Your task to perform on an android device: toggle translation in the chrome app Image 0: 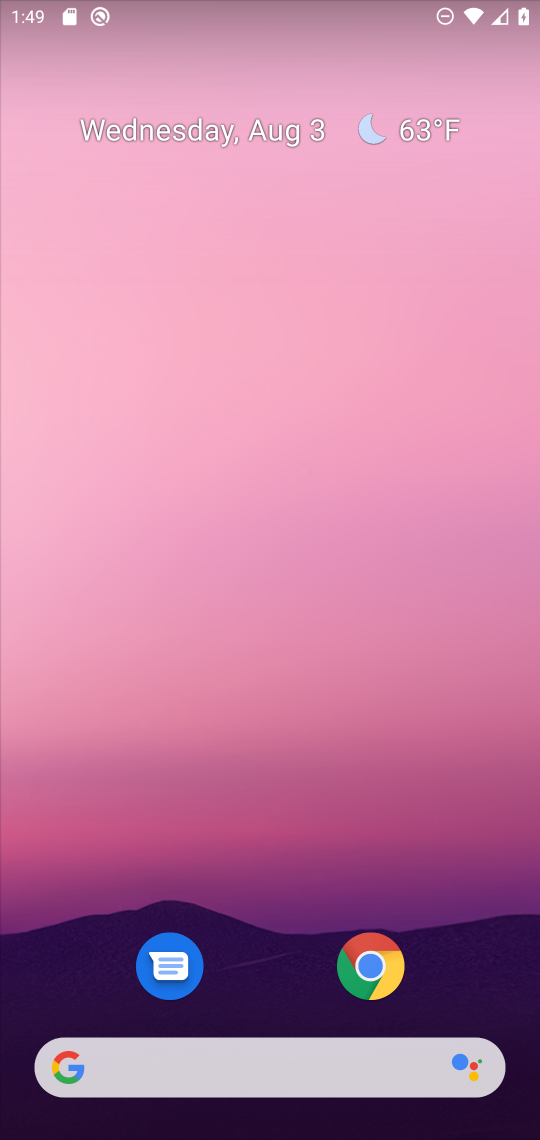
Step 0: click (343, 980)
Your task to perform on an android device: toggle translation in the chrome app Image 1: 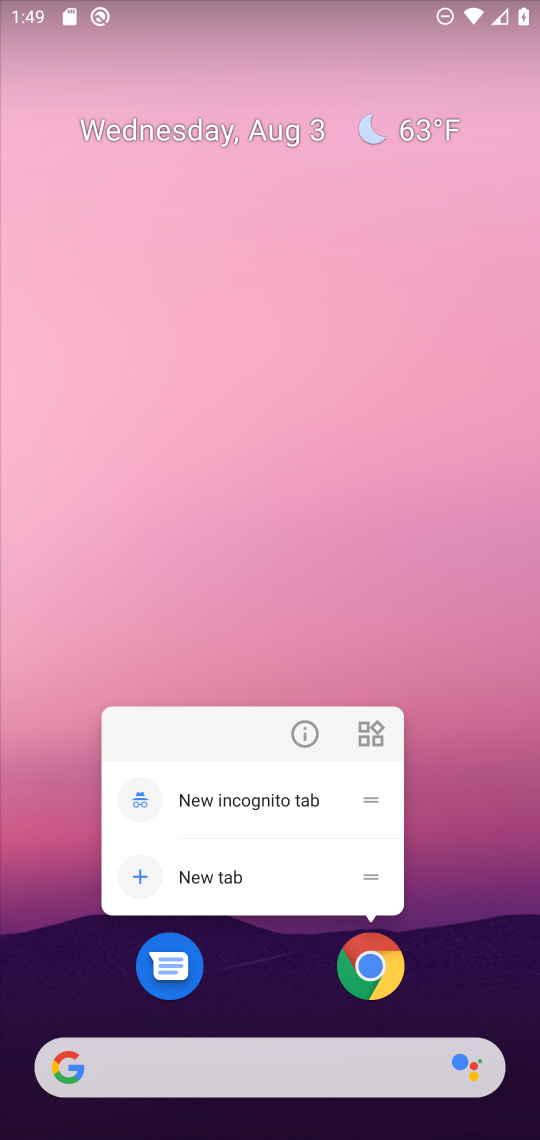
Step 1: click (381, 983)
Your task to perform on an android device: toggle translation in the chrome app Image 2: 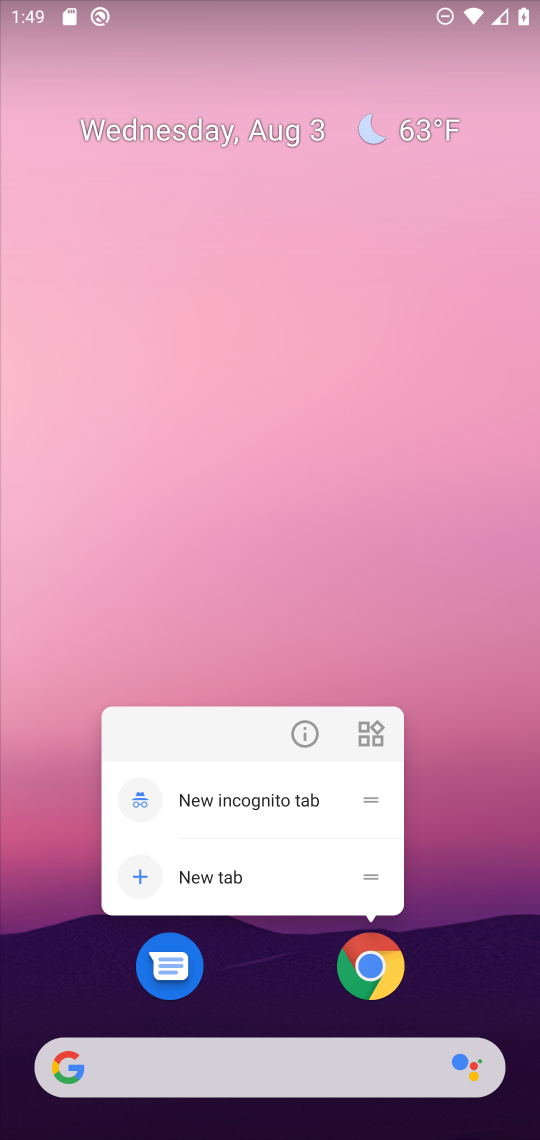
Step 2: click (362, 978)
Your task to perform on an android device: toggle translation in the chrome app Image 3: 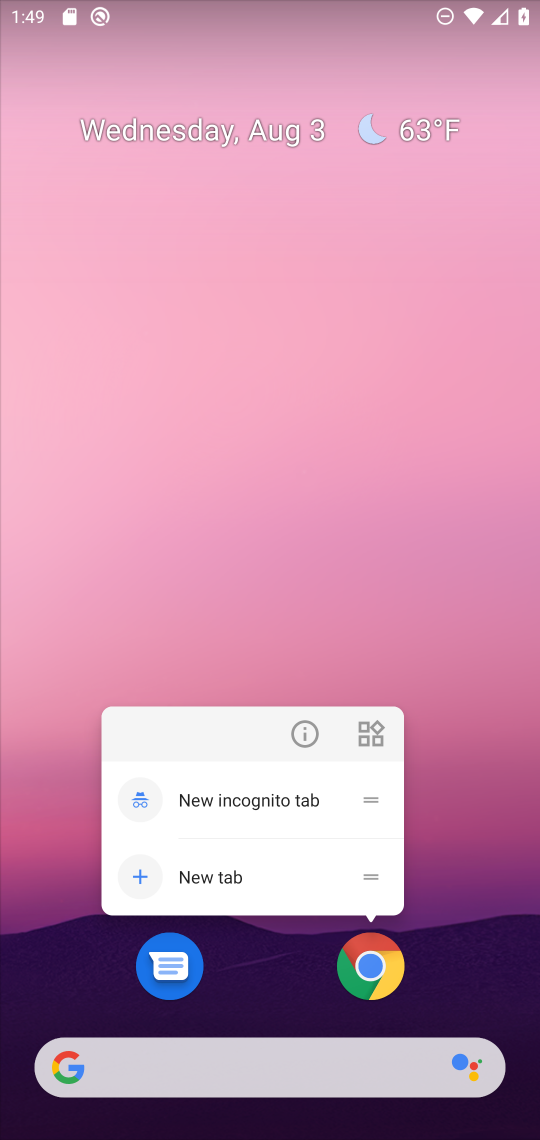
Step 3: click (364, 964)
Your task to perform on an android device: toggle translation in the chrome app Image 4: 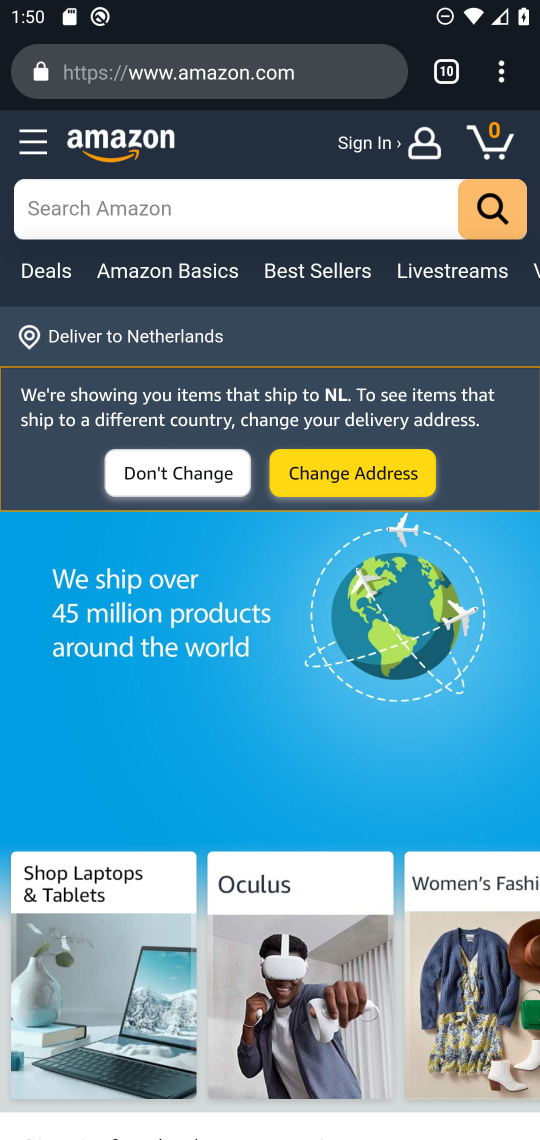
Step 4: click (495, 72)
Your task to perform on an android device: toggle translation in the chrome app Image 5: 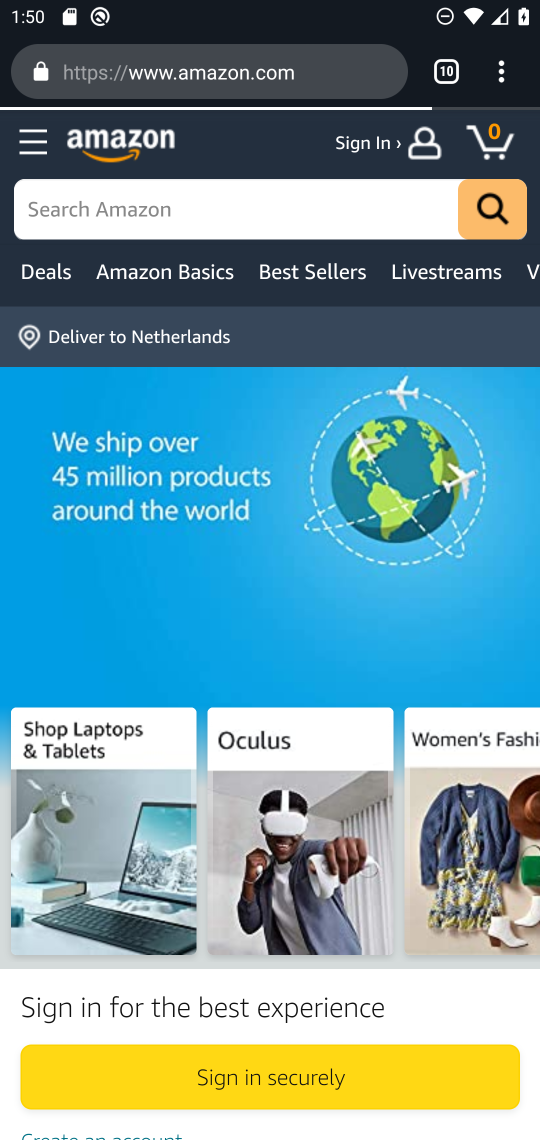
Step 5: click (499, 73)
Your task to perform on an android device: toggle translation in the chrome app Image 6: 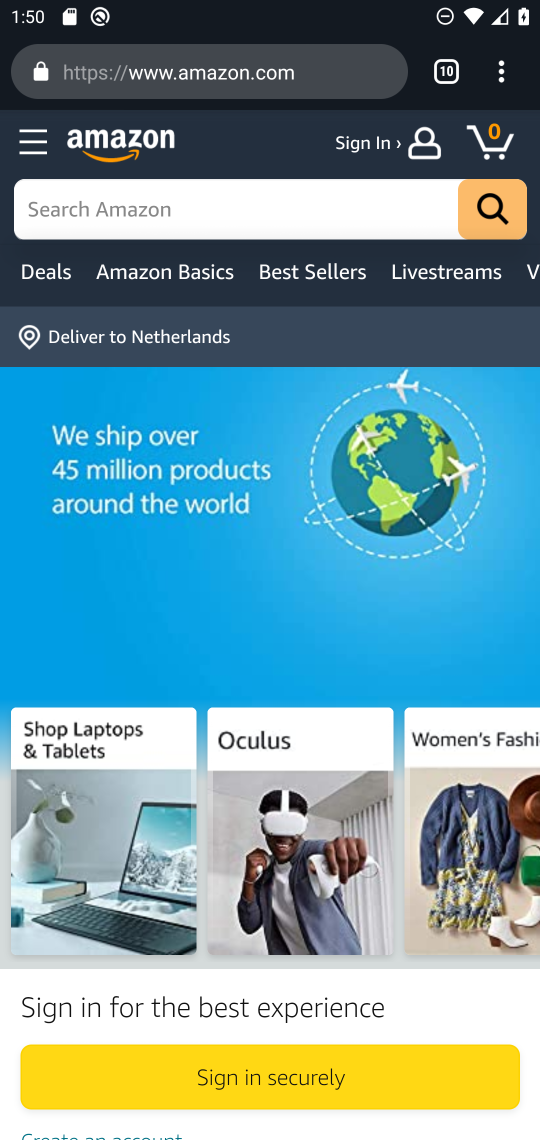
Step 6: drag from (499, 73) to (263, 849)
Your task to perform on an android device: toggle translation in the chrome app Image 7: 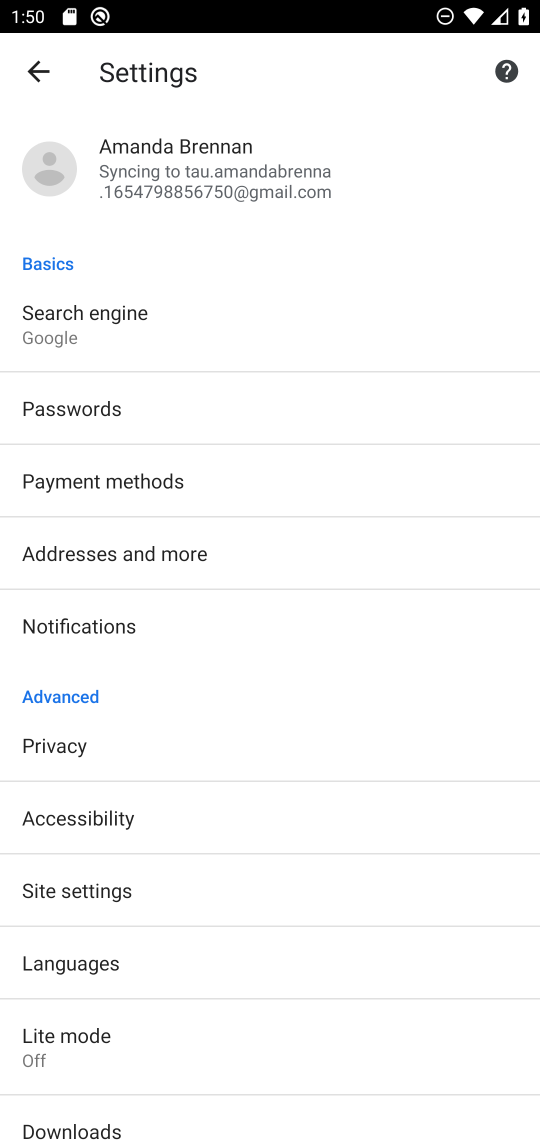
Step 7: click (92, 959)
Your task to perform on an android device: toggle translation in the chrome app Image 8: 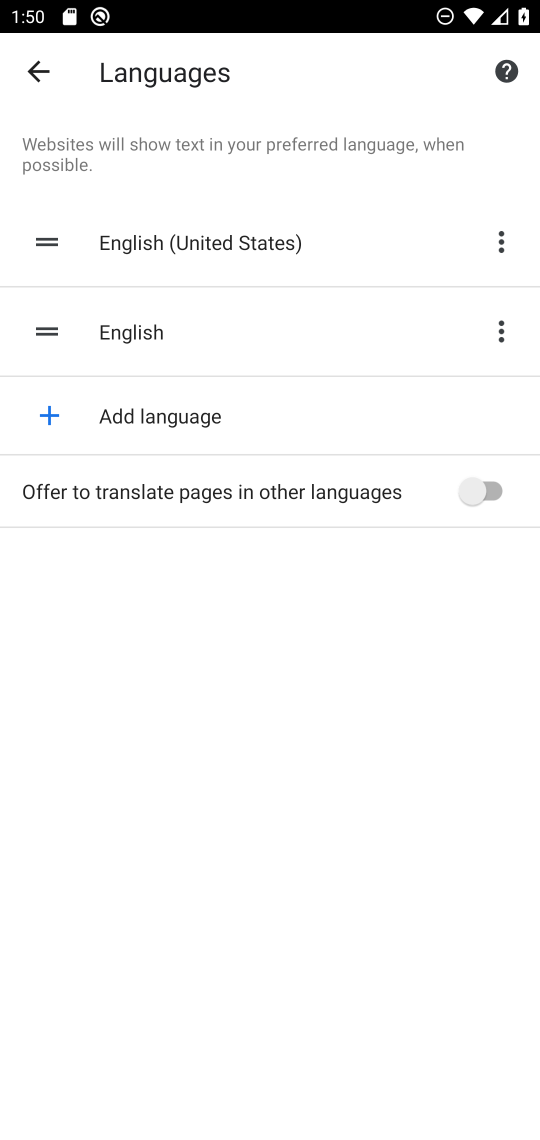
Step 8: click (485, 467)
Your task to perform on an android device: toggle translation in the chrome app Image 9: 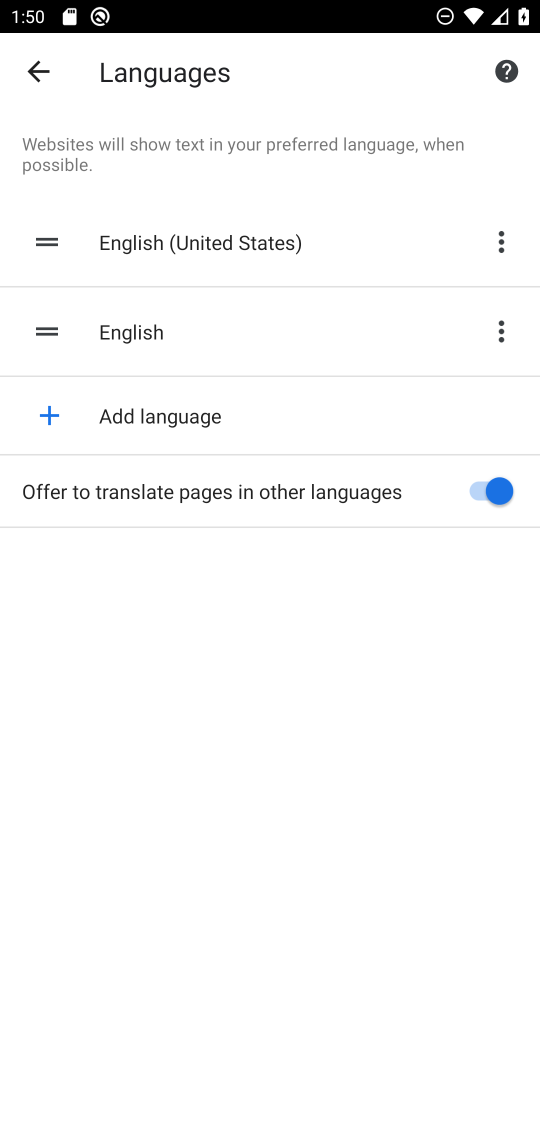
Step 9: task complete